Your task to perform on an android device: turn on sleep mode Image 0: 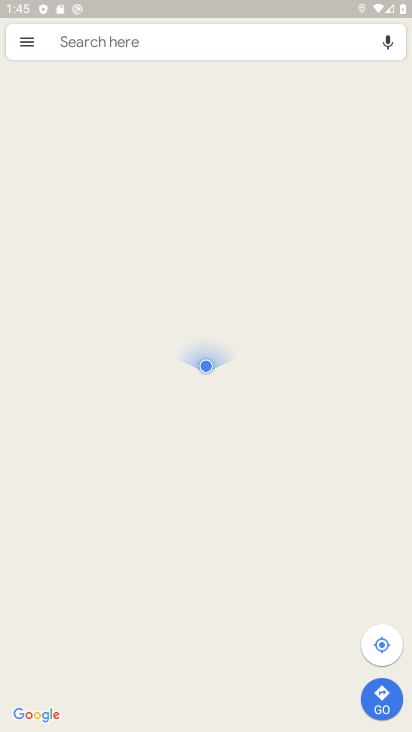
Step 0: press home button
Your task to perform on an android device: turn on sleep mode Image 1: 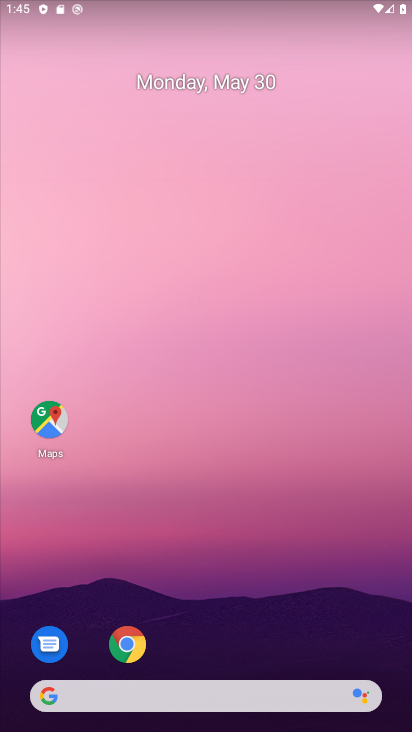
Step 1: drag from (208, 558) to (71, 76)
Your task to perform on an android device: turn on sleep mode Image 2: 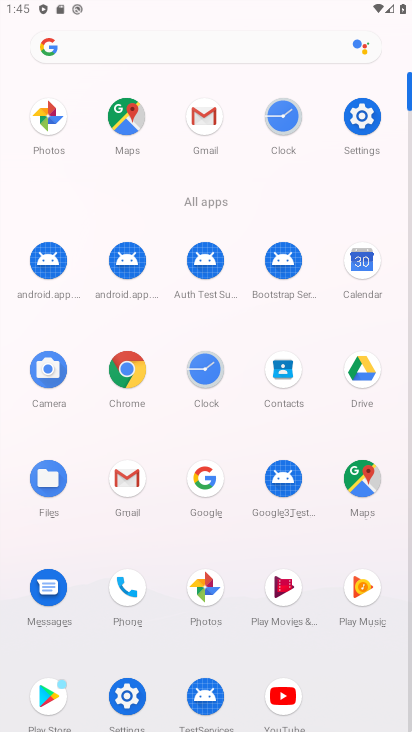
Step 2: click (354, 120)
Your task to perform on an android device: turn on sleep mode Image 3: 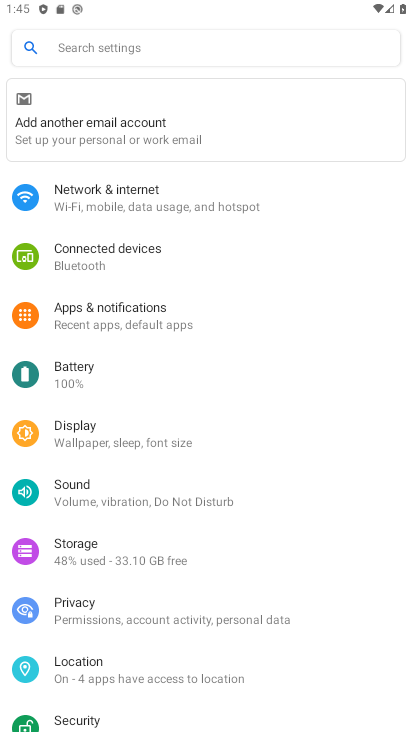
Step 3: click (89, 424)
Your task to perform on an android device: turn on sleep mode Image 4: 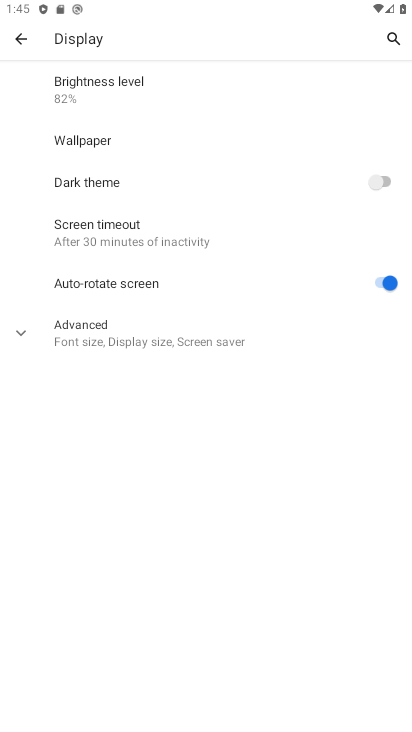
Step 4: click (119, 226)
Your task to perform on an android device: turn on sleep mode Image 5: 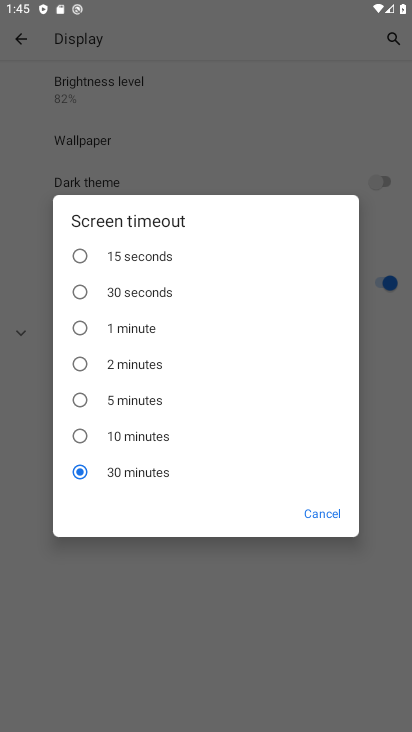
Step 5: click (315, 516)
Your task to perform on an android device: turn on sleep mode Image 6: 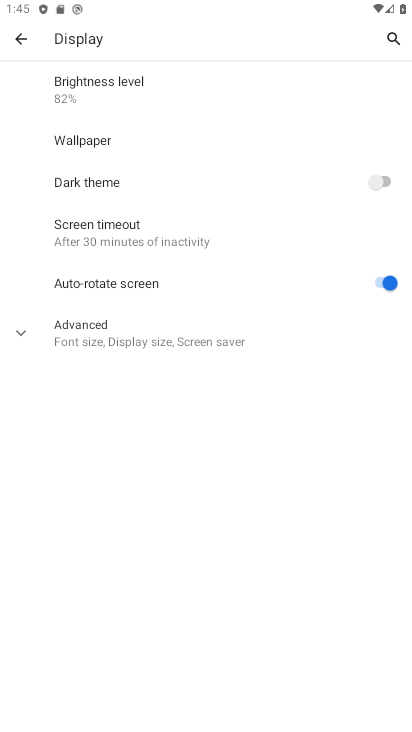
Step 6: click (86, 335)
Your task to perform on an android device: turn on sleep mode Image 7: 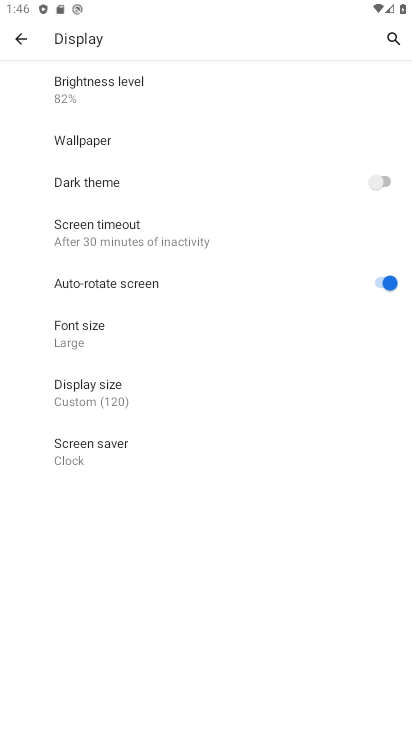
Step 7: task complete